Your task to perform on an android device: Open Android settings Image 0: 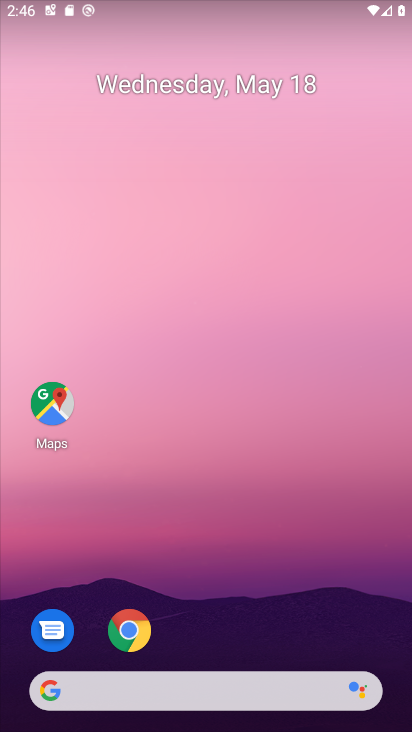
Step 0: drag from (233, 643) to (266, 2)
Your task to perform on an android device: Open Android settings Image 1: 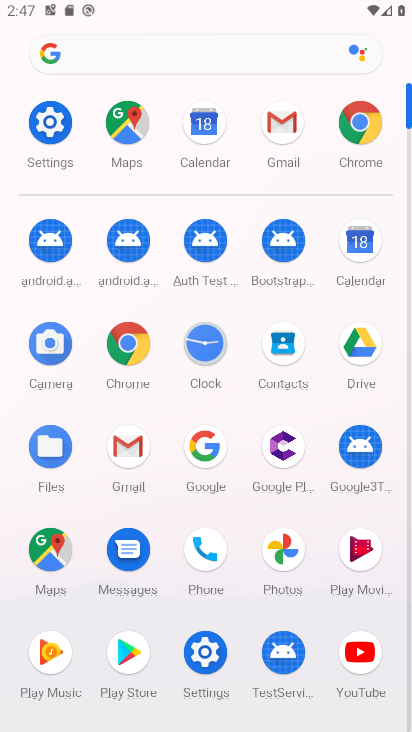
Step 1: click (206, 649)
Your task to perform on an android device: Open Android settings Image 2: 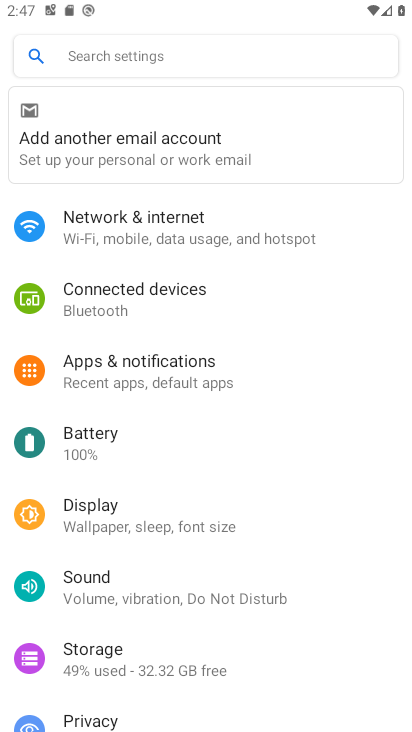
Step 2: drag from (152, 680) to (223, 62)
Your task to perform on an android device: Open Android settings Image 3: 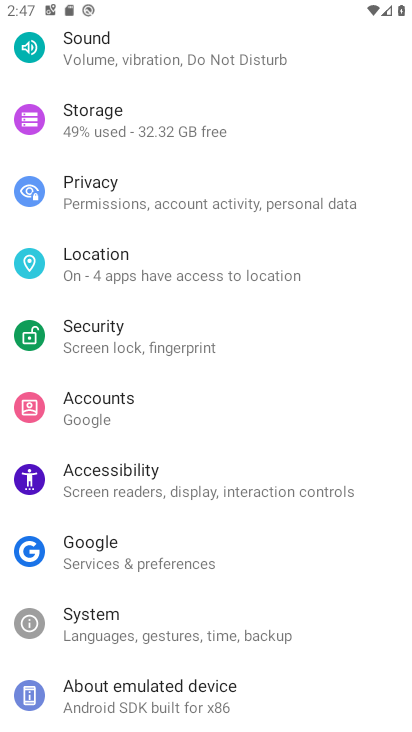
Step 3: click (168, 697)
Your task to perform on an android device: Open Android settings Image 4: 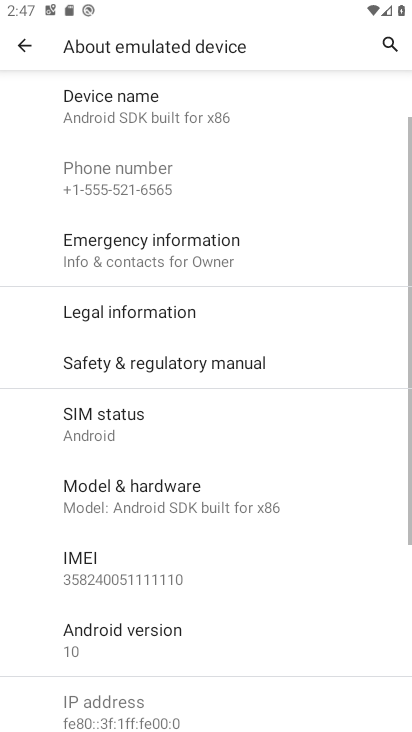
Step 4: click (128, 640)
Your task to perform on an android device: Open Android settings Image 5: 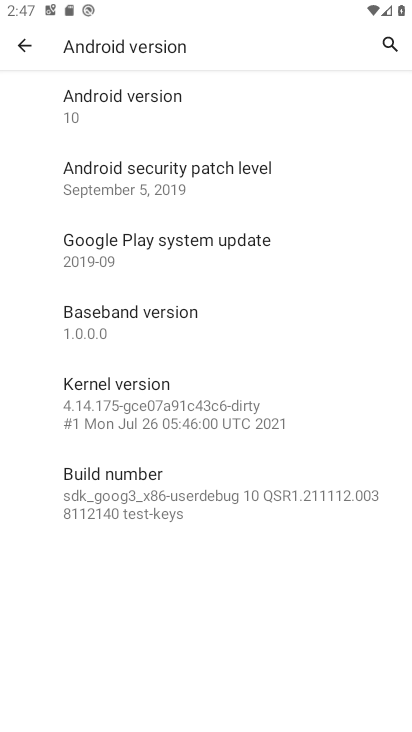
Step 5: task complete